Your task to perform on an android device: Open maps Image 0: 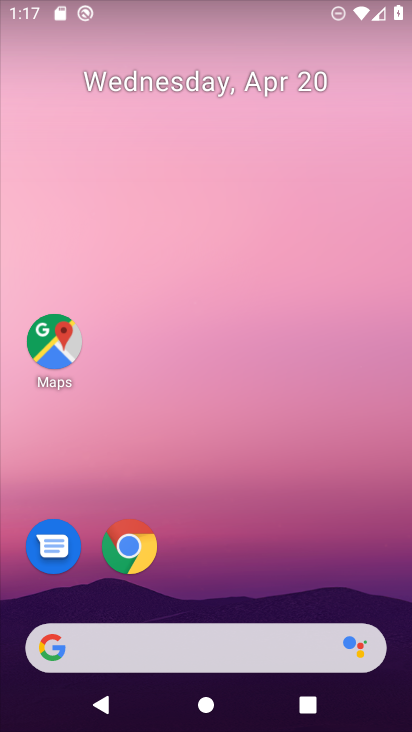
Step 0: click (43, 346)
Your task to perform on an android device: Open maps Image 1: 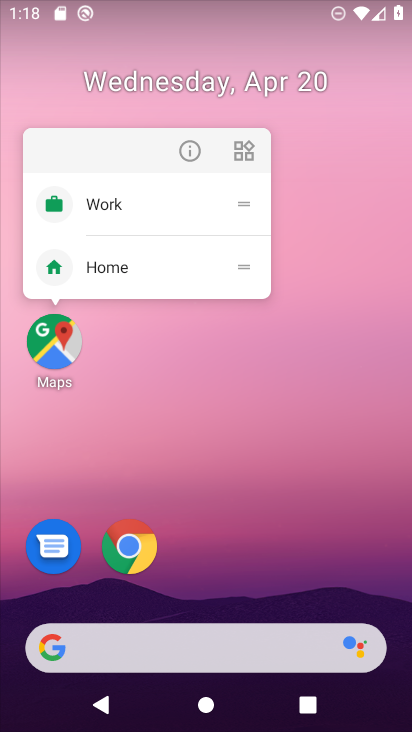
Step 1: click (63, 364)
Your task to perform on an android device: Open maps Image 2: 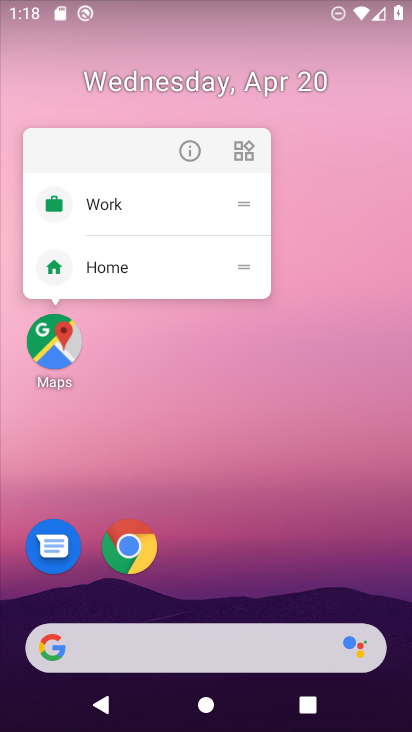
Step 2: click (79, 353)
Your task to perform on an android device: Open maps Image 3: 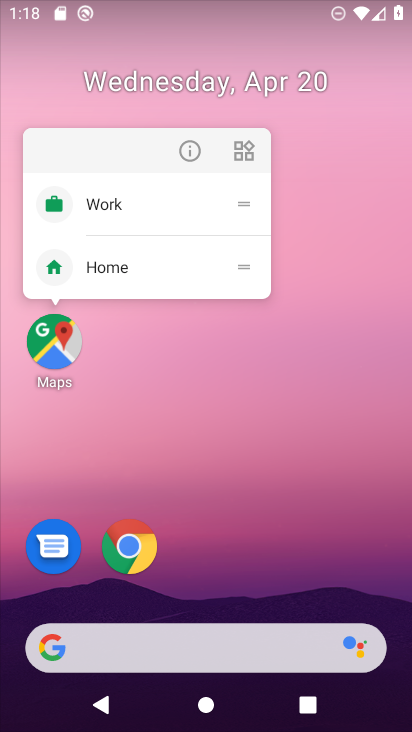
Step 3: click (60, 337)
Your task to perform on an android device: Open maps Image 4: 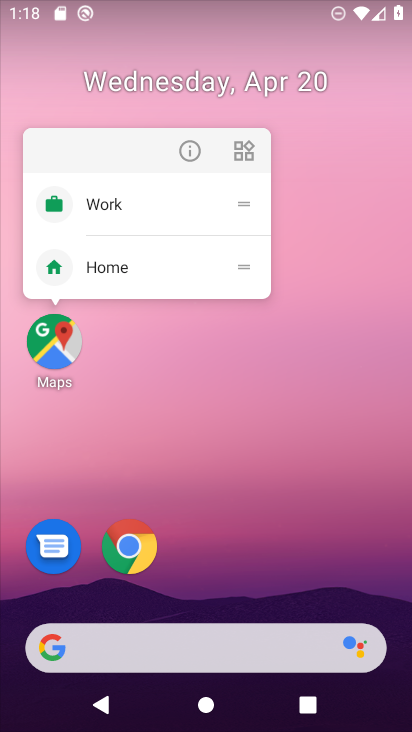
Step 4: drag from (245, 591) to (409, 25)
Your task to perform on an android device: Open maps Image 5: 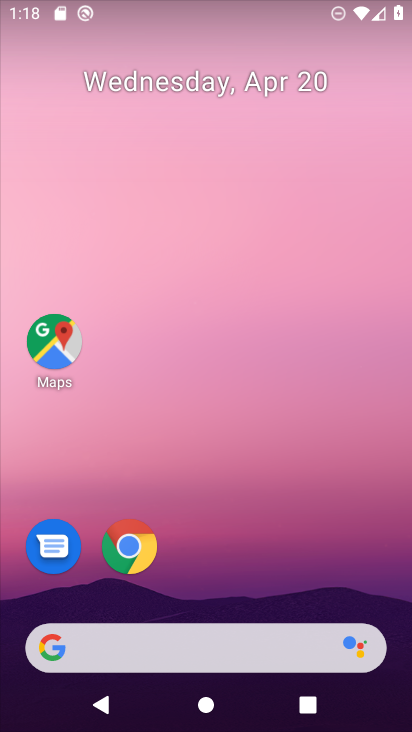
Step 5: drag from (251, 545) to (394, 30)
Your task to perform on an android device: Open maps Image 6: 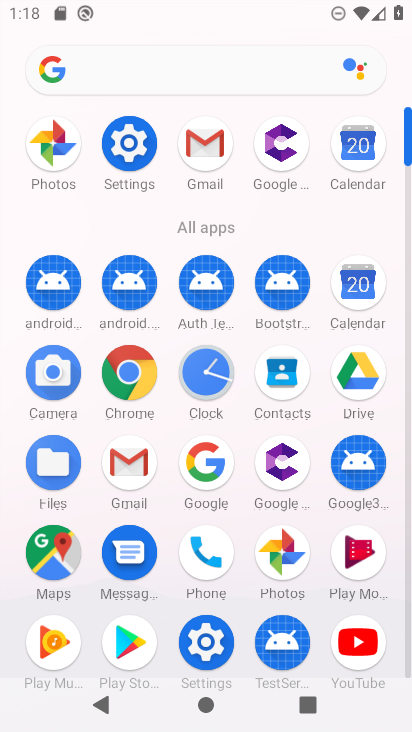
Step 6: click (50, 551)
Your task to perform on an android device: Open maps Image 7: 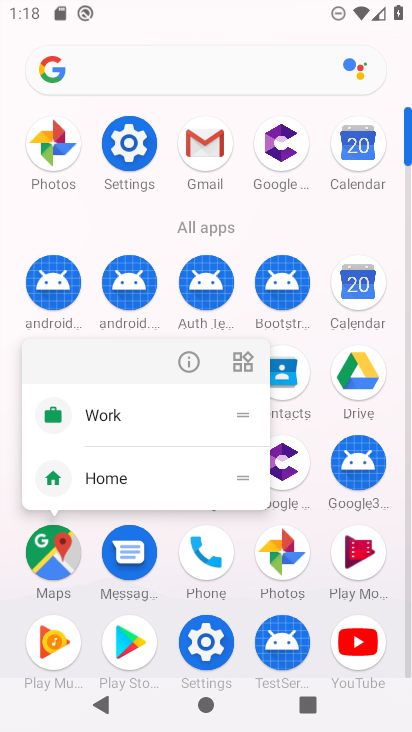
Step 7: click (52, 549)
Your task to perform on an android device: Open maps Image 8: 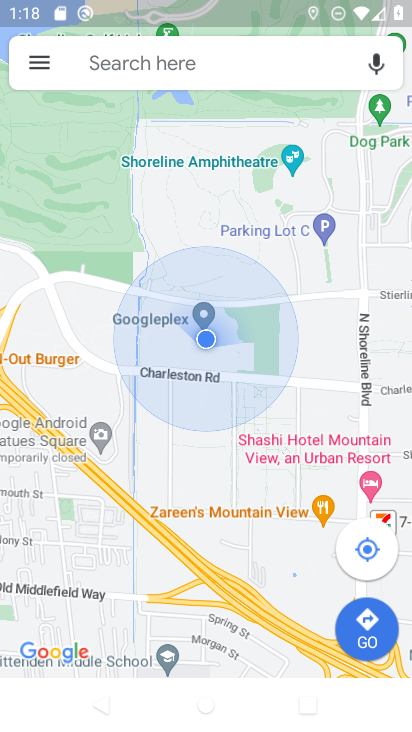
Step 8: task complete